Your task to perform on an android device: Open Chrome and go to settings Image 0: 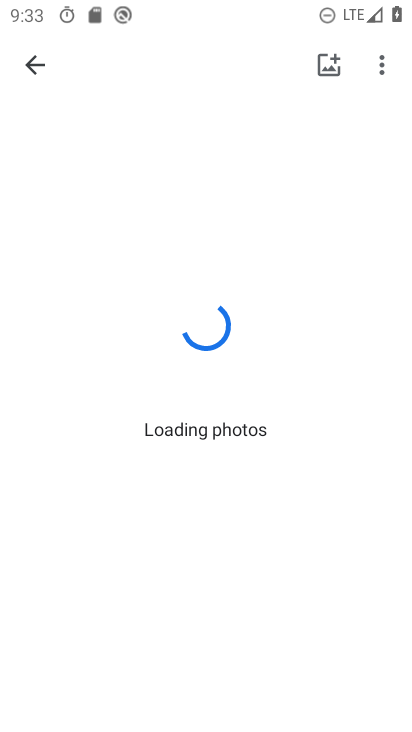
Step 0: press home button
Your task to perform on an android device: Open Chrome and go to settings Image 1: 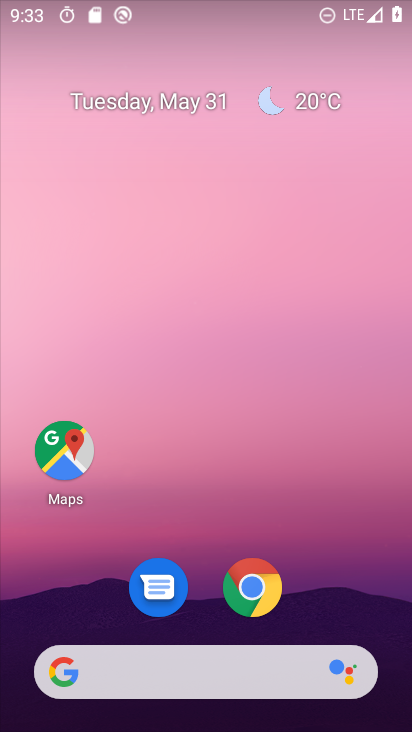
Step 1: click (252, 579)
Your task to perform on an android device: Open Chrome and go to settings Image 2: 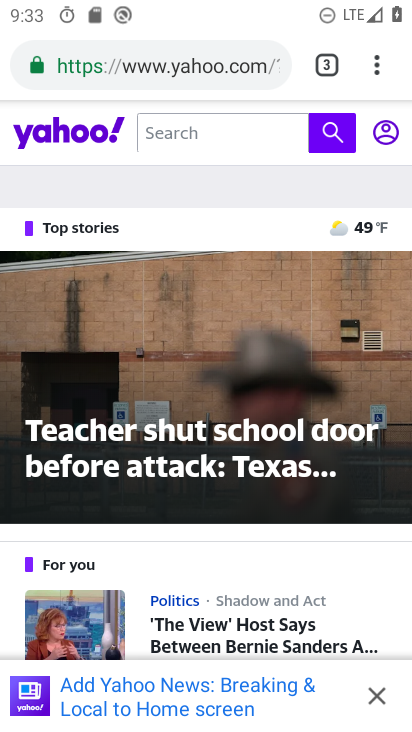
Step 2: click (380, 66)
Your task to perform on an android device: Open Chrome and go to settings Image 3: 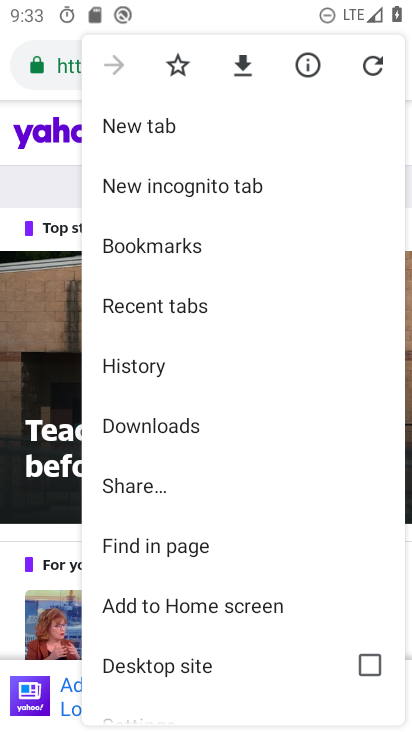
Step 3: drag from (150, 628) to (222, 168)
Your task to perform on an android device: Open Chrome and go to settings Image 4: 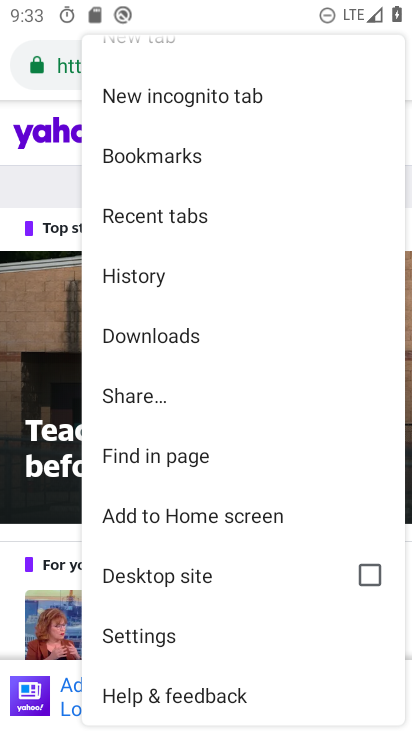
Step 4: click (156, 646)
Your task to perform on an android device: Open Chrome and go to settings Image 5: 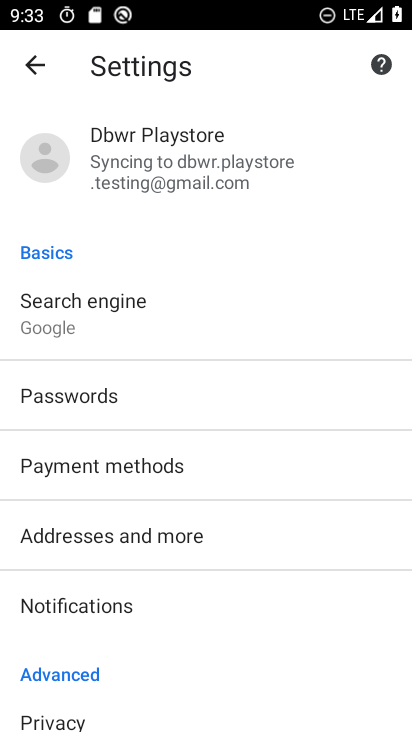
Step 5: task complete